Your task to perform on an android device: toggle priority inbox in the gmail app Image 0: 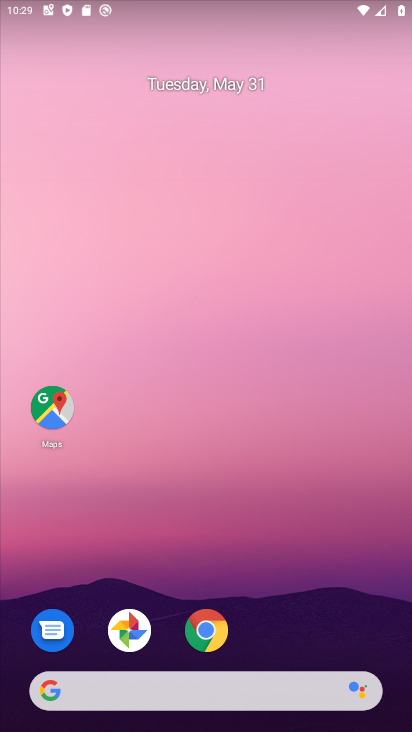
Step 0: drag from (245, 582) to (262, 167)
Your task to perform on an android device: toggle priority inbox in the gmail app Image 1: 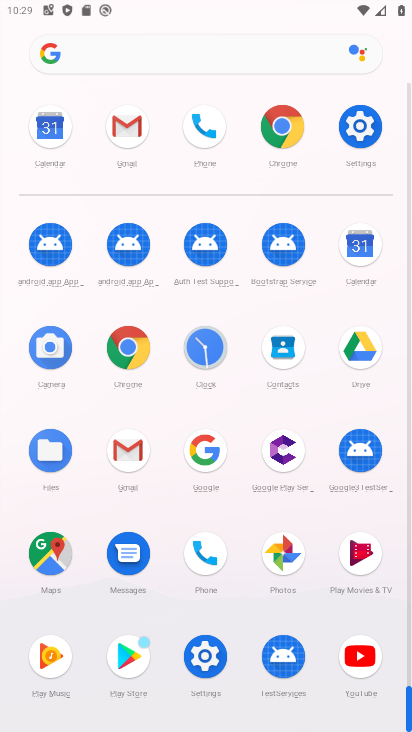
Step 1: click (104, 456)
Your task to perform on an android device: toggle priority inbox in the gmail app Image 2: 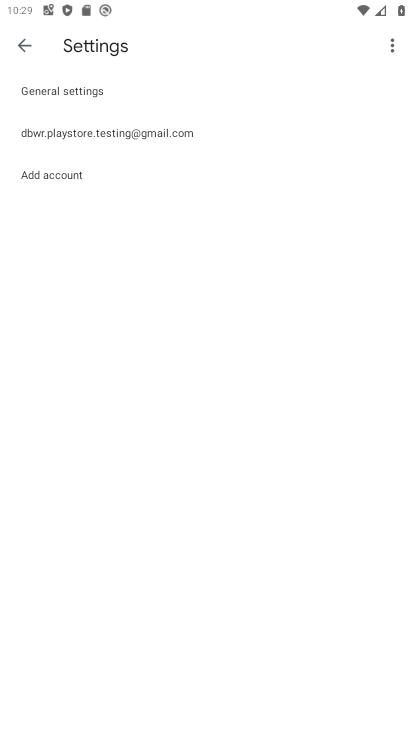
Step 2: click (37, 133)
Your task to perform on an android device: toggle priority inbox in the gmail app Image 3: 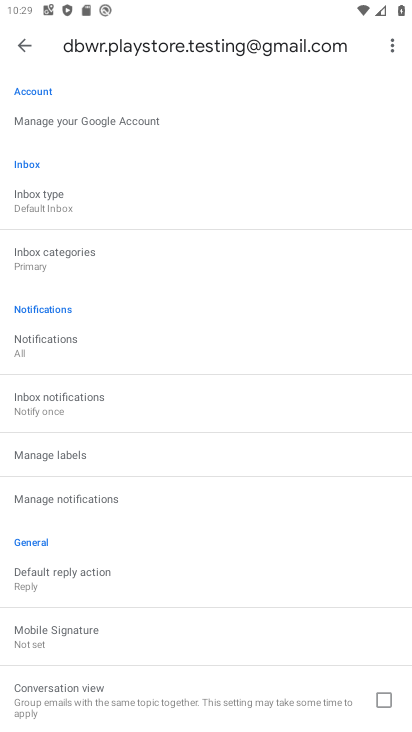
Step 3: drag from (204, 629) to (223, 323)
Your task to perform on an android device: toggle priority inbox in the gmail app Image 4: 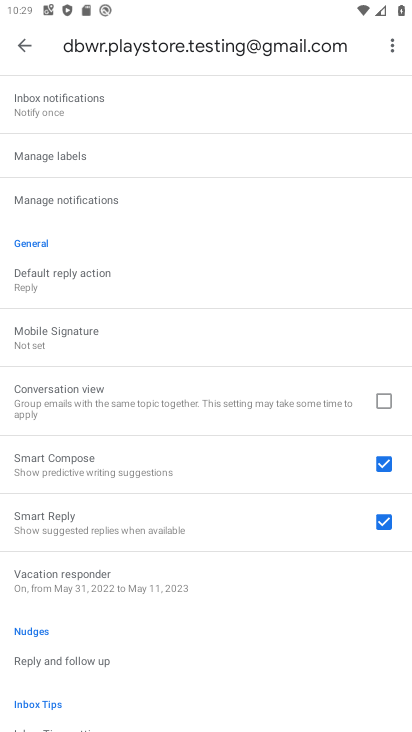
Step 4: drag from (168, 576) to (152, 405)
Your task to perform on an android device: toggle priority inbox in the gmail app Image 5: 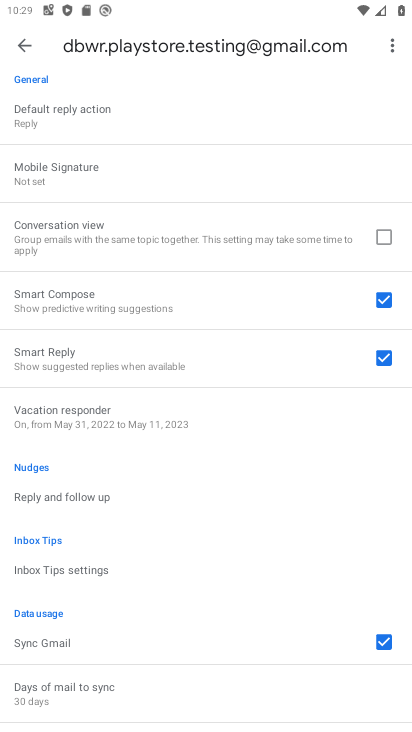
Step 5: drag from (147, 654) to (147, 278)
Your task to perform on an android device: toggle priority inbox in the gmail app Image 6: 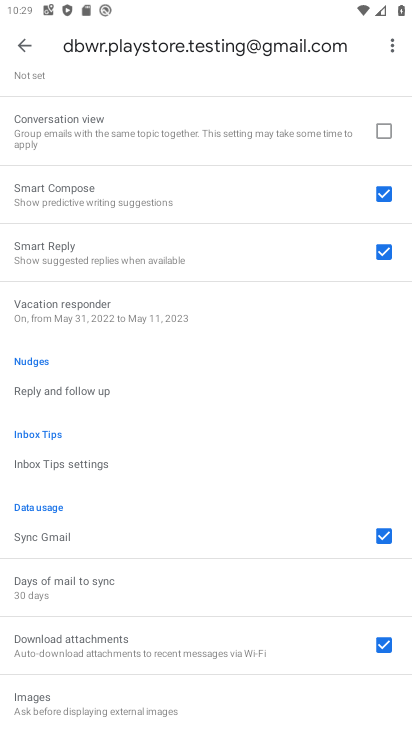
Step 6: drag from (91, 678) to (149, 232)
Your task to perform on an android device: toggle priority inbox in the gmail app Image 7: 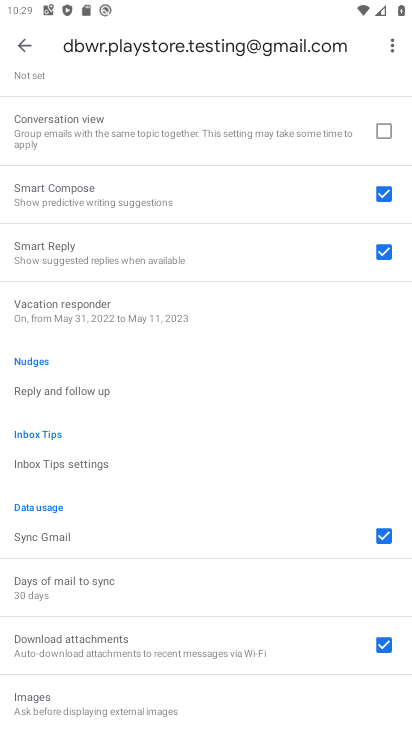
Step 7: click (35, 51)
Your task to perform on an android device: toggle priority inbox in the gmail app Image 8: 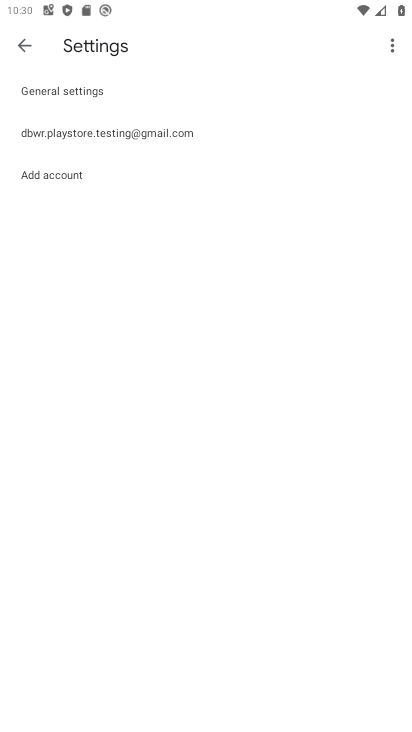
Step 8: click (117, 132)
Your task to perform on an android device: toggle priority inbox in the gmail app Image 9: 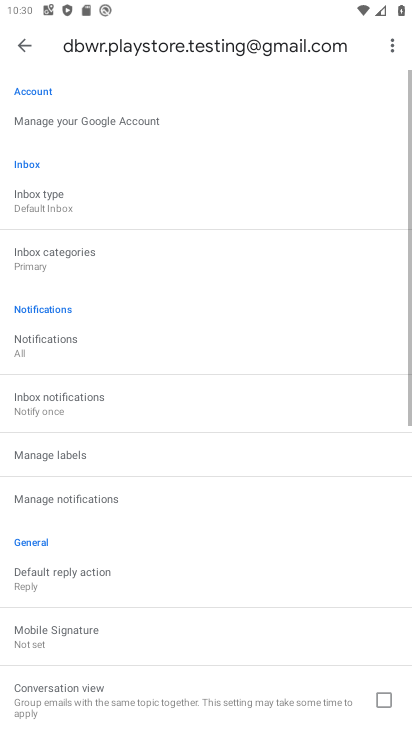
Step 9: click (76, 198)
Your task to perform on an android device: toggle priority inbox in the gmail app Image 10: 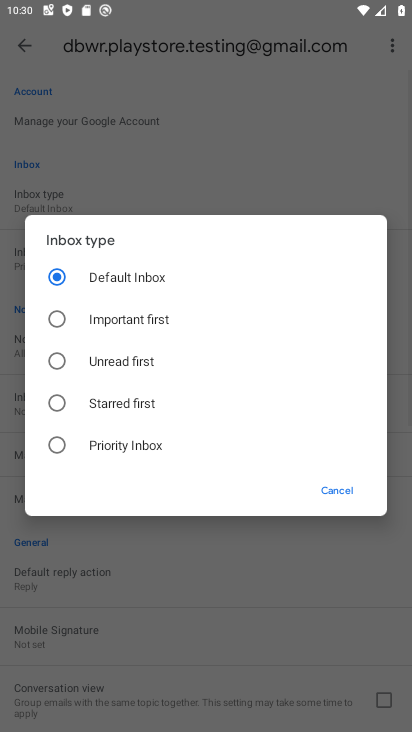
Step 10: click (108, 437)
Your task to perform on an android device: toggle priority inbox in the gmail app Image 11: 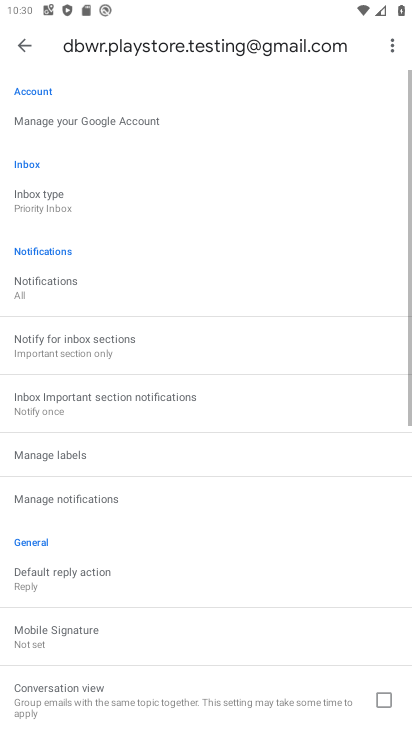
Step 11: task complete